Your task to perform on an android device: Open Google Maps Image 0: 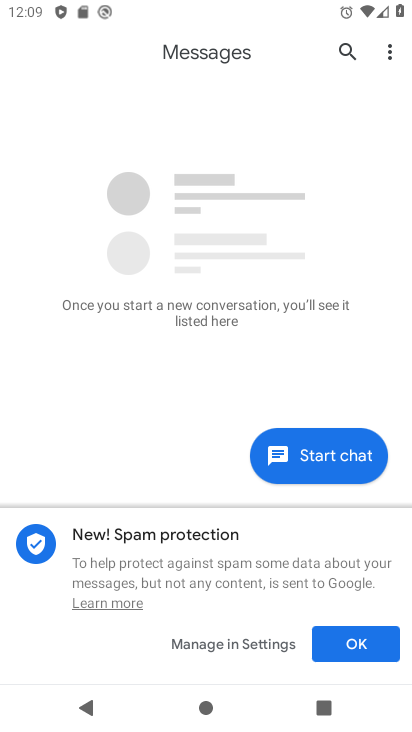
Step 0: press home button
Your task to perform on an android device: Open Google Maps Image 1: 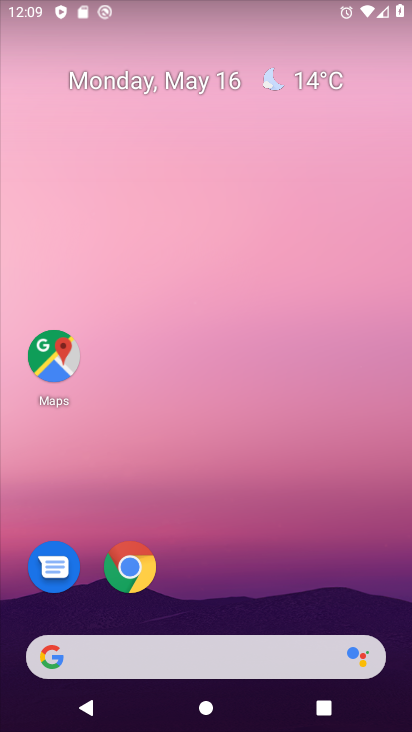
Step 1: drag from (218, 536) to (201, 38)
Your task to perform on an android device: Open Google Maps Image 2: 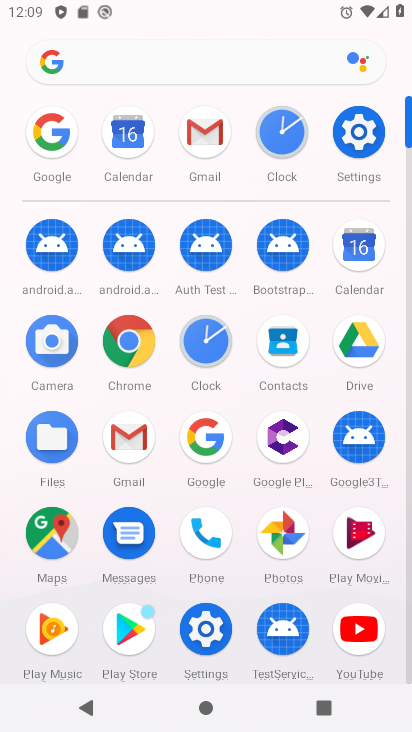
Step 2: click (47, 529)
Your task to perform on an android device: Open Google Maps Image 3: 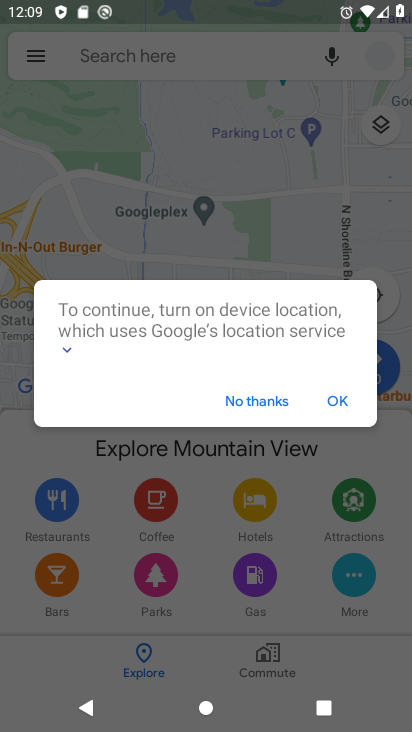
Step 3: click (270, 403)
Your task to perform on an android device: Open Google Maps Image 4: 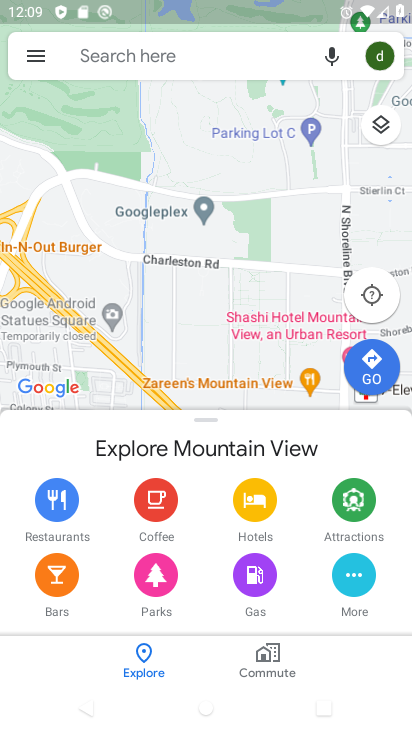
Step 4: task complete